Your task to perform on an android device: check storage Image 0: 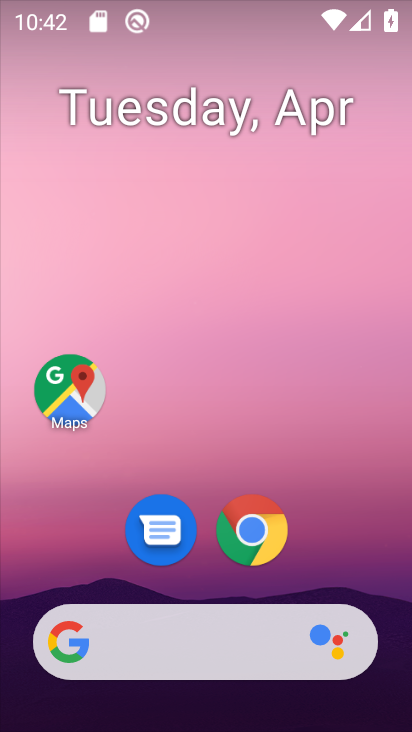
Step 0: drag from (163, 634) to (267, 162)
Your task to perform on an android device: check storage Image 1: 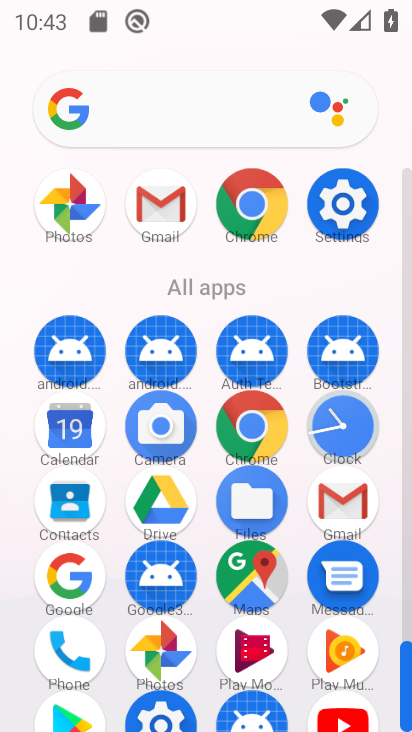
Step 1: click (340, 214)
Your task to perform on an android device: check storage Image 2: 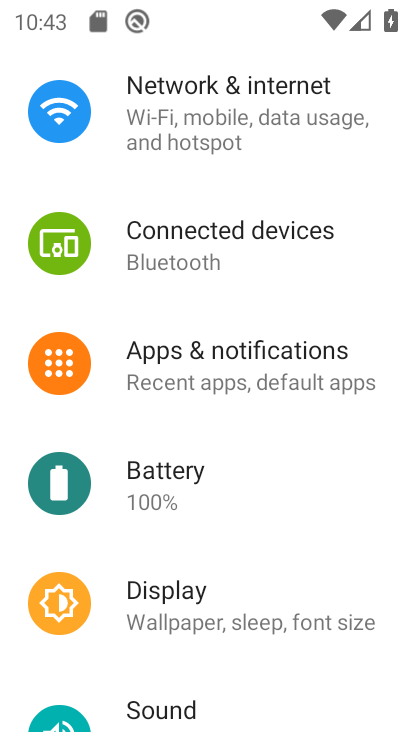
Step 2: drag from (241, 564) to (341, 116)
Your task to perform on an android device: check storage Image 3: 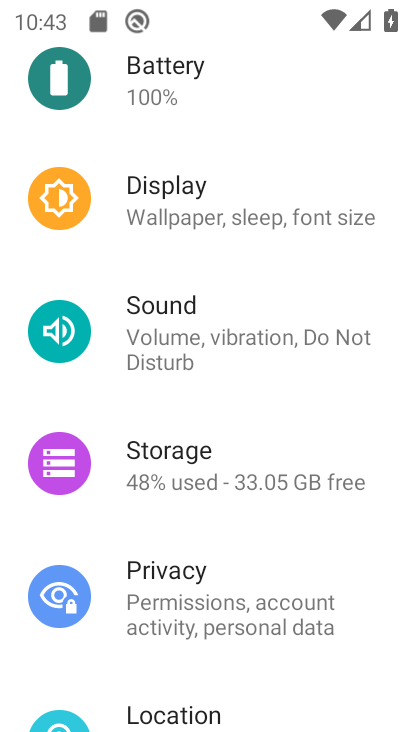
Step 3: click (165, 454)
Your task to perform on an android device: check storage Image 4: 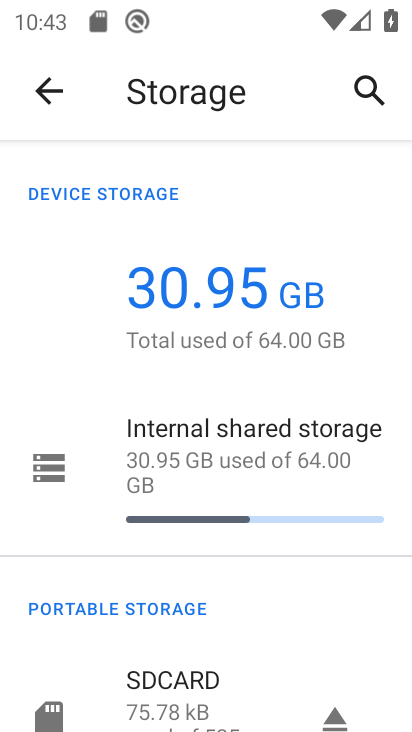
Step 4: task complete